Your task to perform on an android device: turn on data saver in the chrome app Image 0: 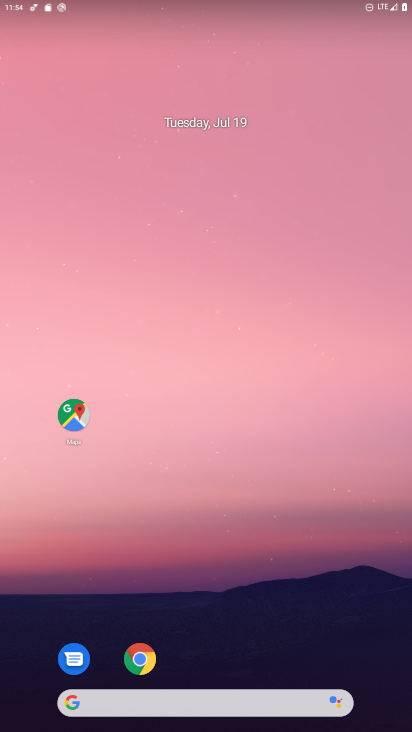
Step 0: click (360, 71)
Your task to perform on an android device: turn on data saver in the chrome app Image 1: 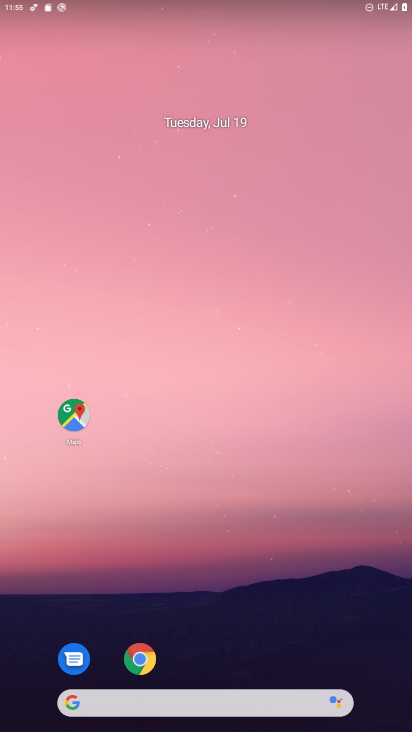
Step 1: drag from (302, 612) to (278, 48)
Your task to perform on an android device: turn on data saver in the chrome app Image 2: 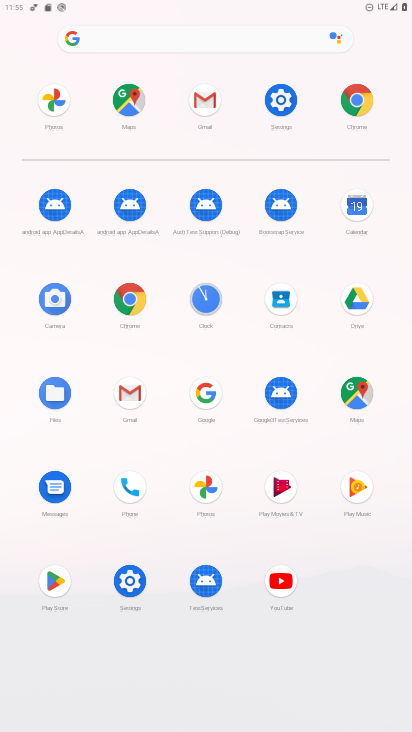
Step 2: click (360, 100)
Your task to perform on an android device: turn on data saver in the chrome app Image 3: 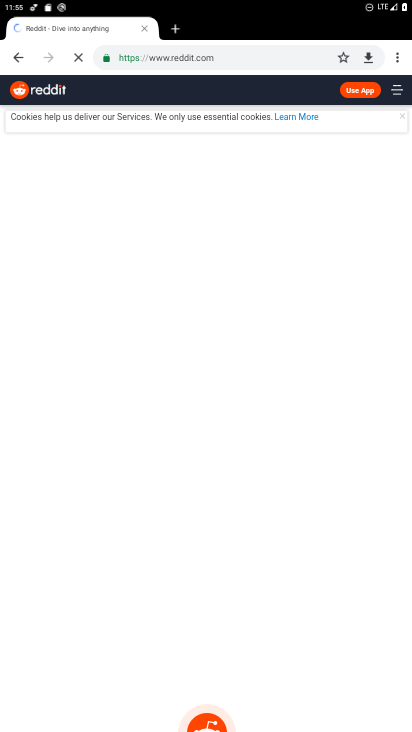
Step 3: drag from (394, 57) to (294, 418)
Your task to perform on an android device: turn on data saver in the chrome app Image 4: 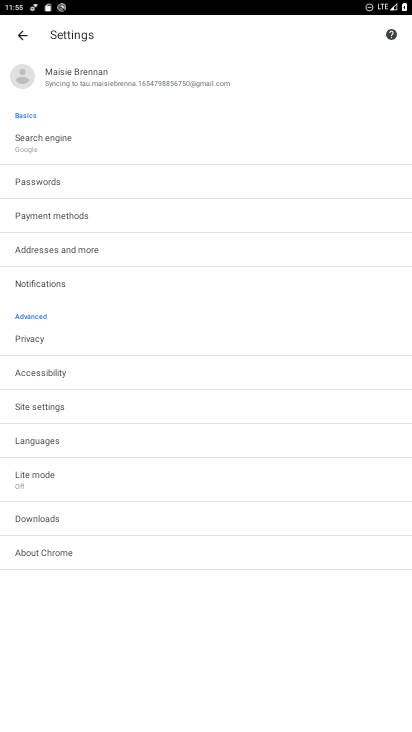
Step 4: click (58, 486)
Your task to perform on an android device: turn on data saver in the chrome app Image 5: 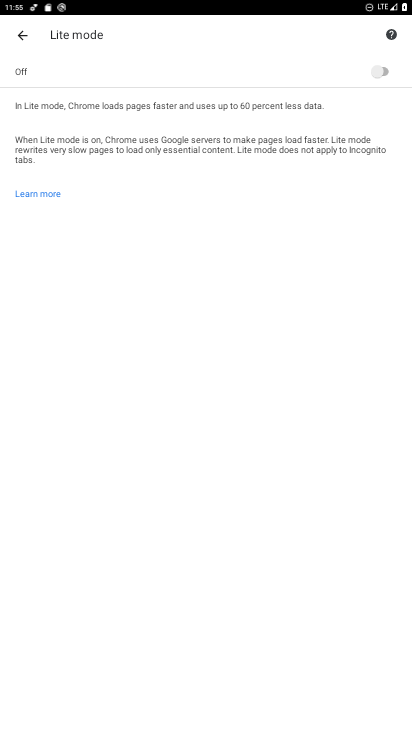
Step 5: click (390, 78)
Your task to perform on an android device: turn on data saver in the chrome app Image 6: 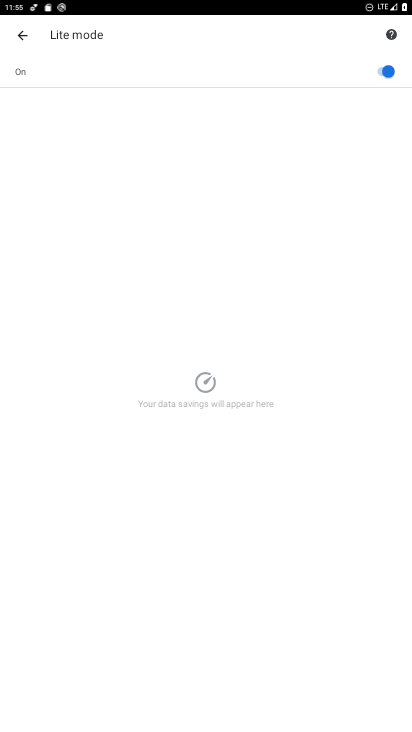
Step 6: task complete